Your task to perform on an android device: change alarm snooze length Image 0: 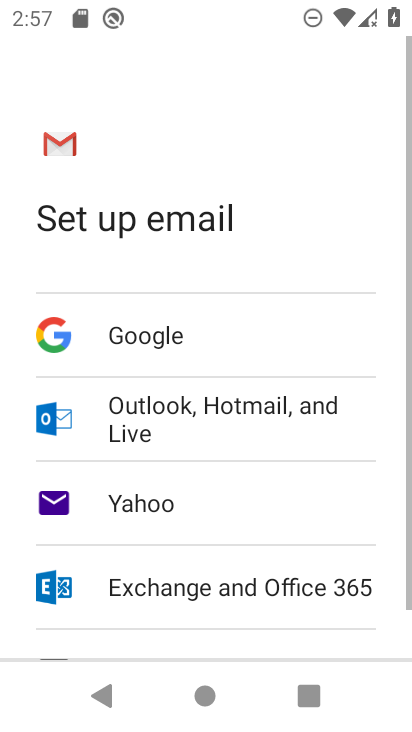
Step 0: press home button
Your task to perform on an android device: change alarm snooze length Image 1: 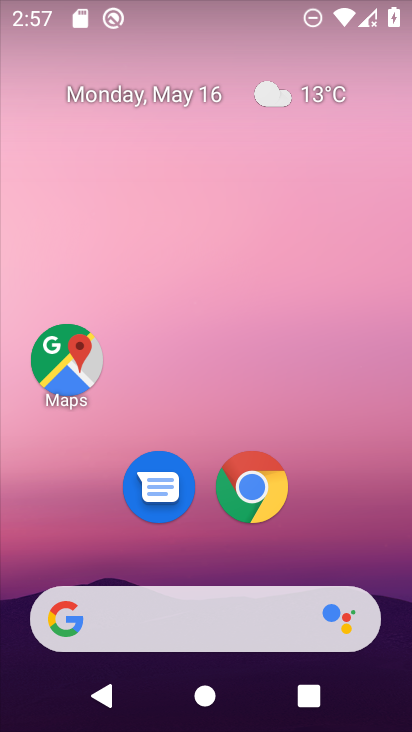
Step 1: drag from (404, 605) to (360, 143)
Your task to perform on an android device: change alarm snooze length Image 2: 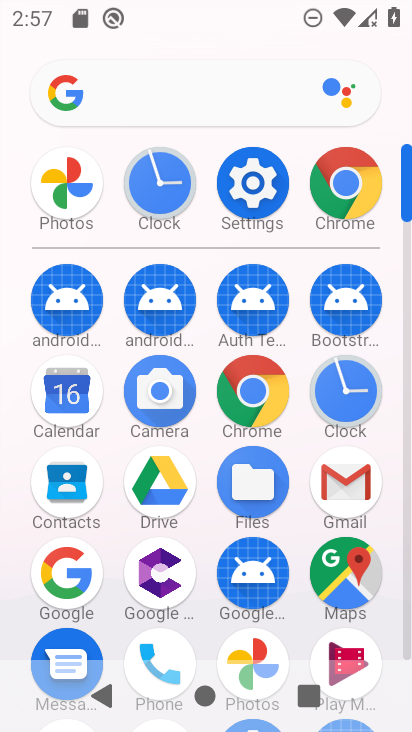
Step 2: click (337, 392)
Your task to perform on an android device: change alarm snooze length Image 3: 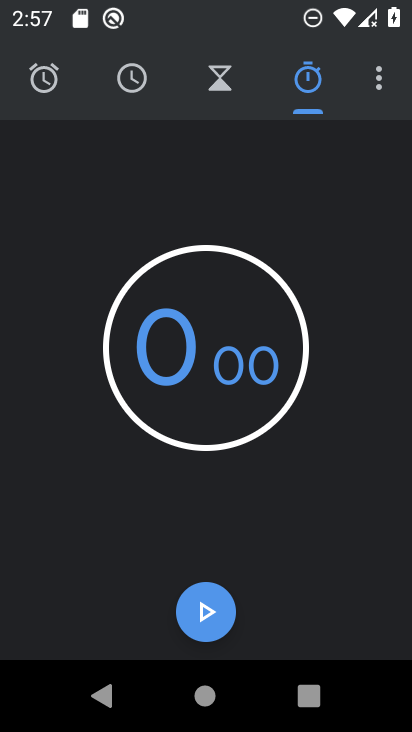
Step 3: click (379, 66)
Your task to perform on an android device: change alarm snooze length Image 4: 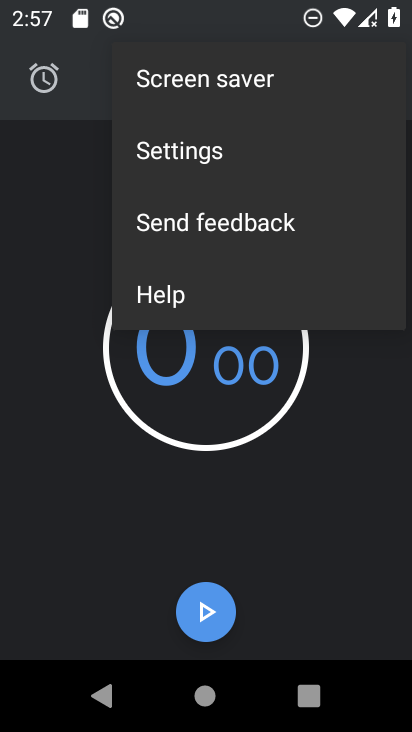
Step 4: click (173, 152)
Your task to perform on an android device: change alarm snooze length Image 5: 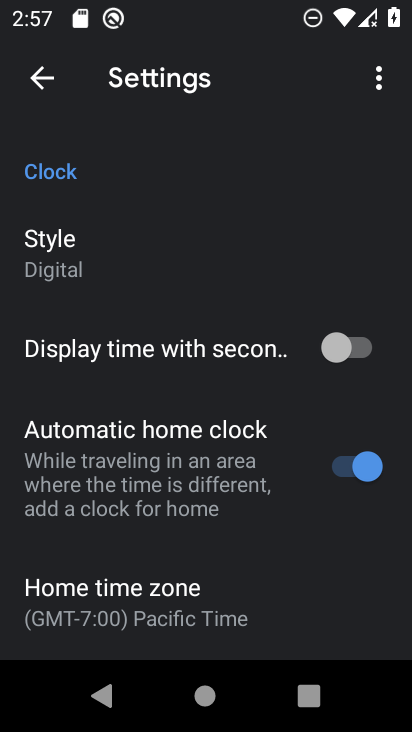
Step 5: drag from (236, 571) to (241, 203)
Your task to perform on an android device: change alarm snooze length Image 6: 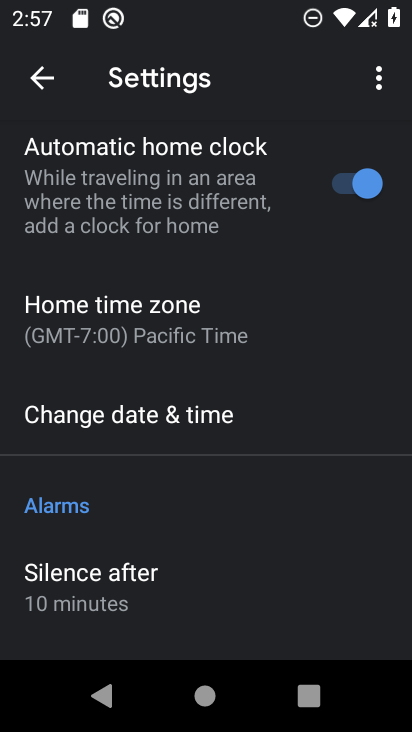
Step 6: drag from (238, 578) to (257, 303)
Your task to perform on an android device: change alarm snooze length Image 7: 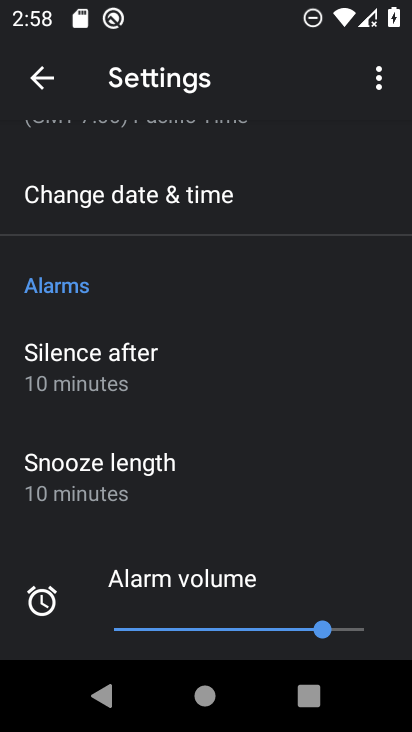
Step 7: drag from (287, 529) to (272, 418)
Your task to perform on an android device: change alarm snooze length Image 8: 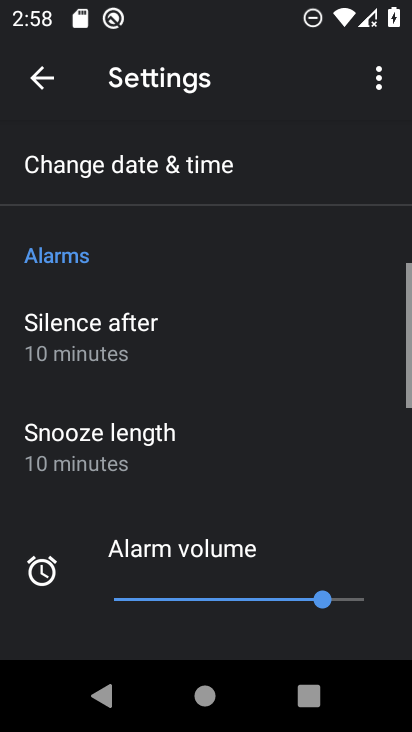
Step 8: click (161, 447)
Your task to perform on an android device: change alarm snooze length Image 9: 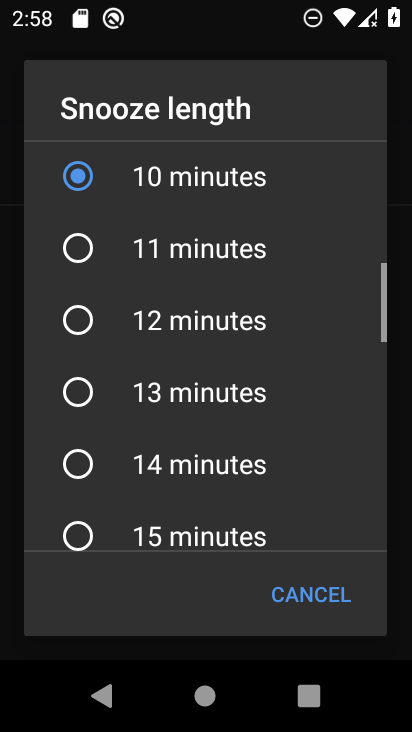
Step 9: click (60, 312)
Your task to perform on an android device: change alarm snooze length Image 10: 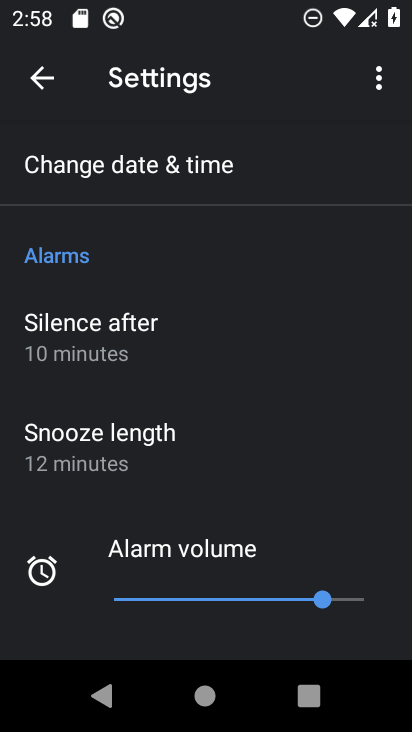
Step 10: task complete